Your task to perform on an android device: uninstall "Etsy: Buy & Sell Unique Items" Image 0: 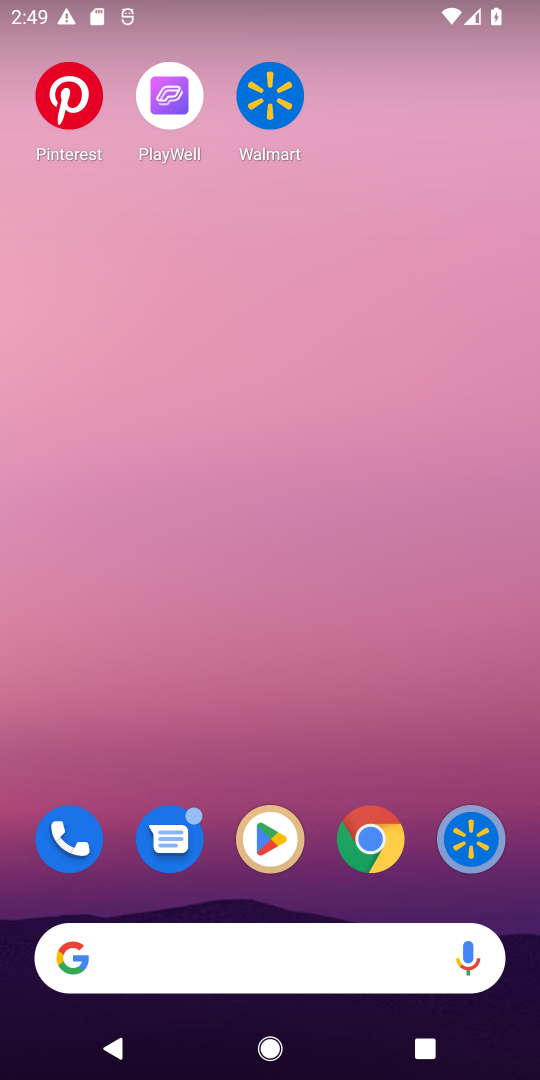
Step 0: click (277, 842)
Your task to perform on an android device: uninstall "Etsy: Buy & Sell Unique Items" Image 1: 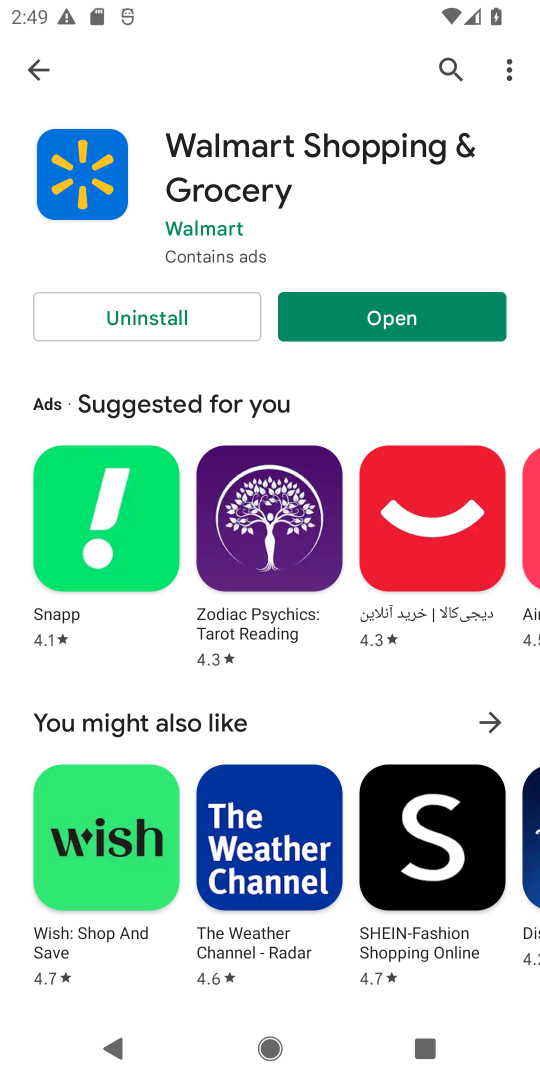
Step 1: click (51, 52)
Your task to perform on an android device: uninstall "Etsy: Buy & Sell Unique Items" Image 2: 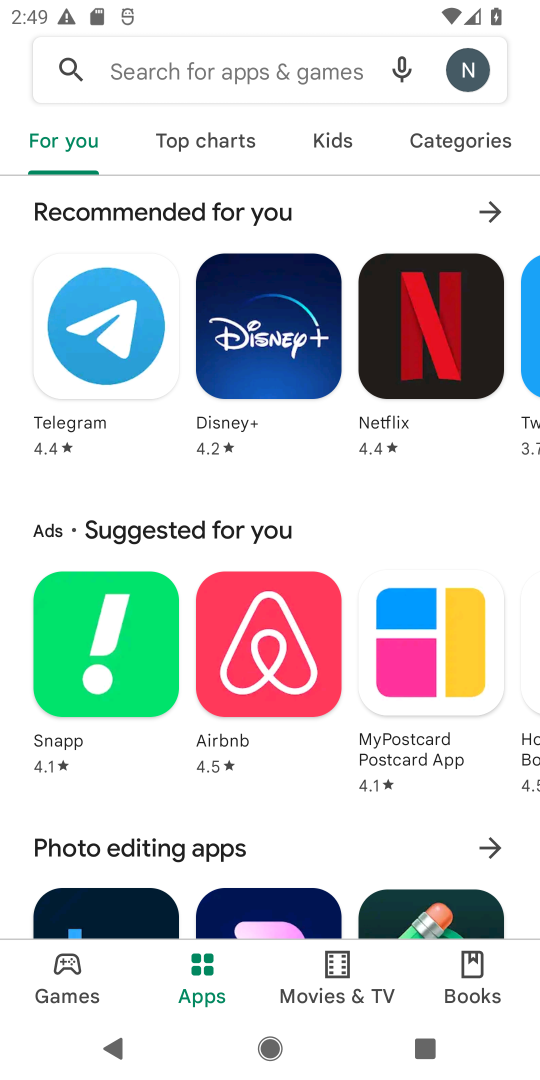
Step 2: click (99, 57)
Your task to perform on an android device: uninstall "Etsy: Buy & Sell Unique Items" Image 3: 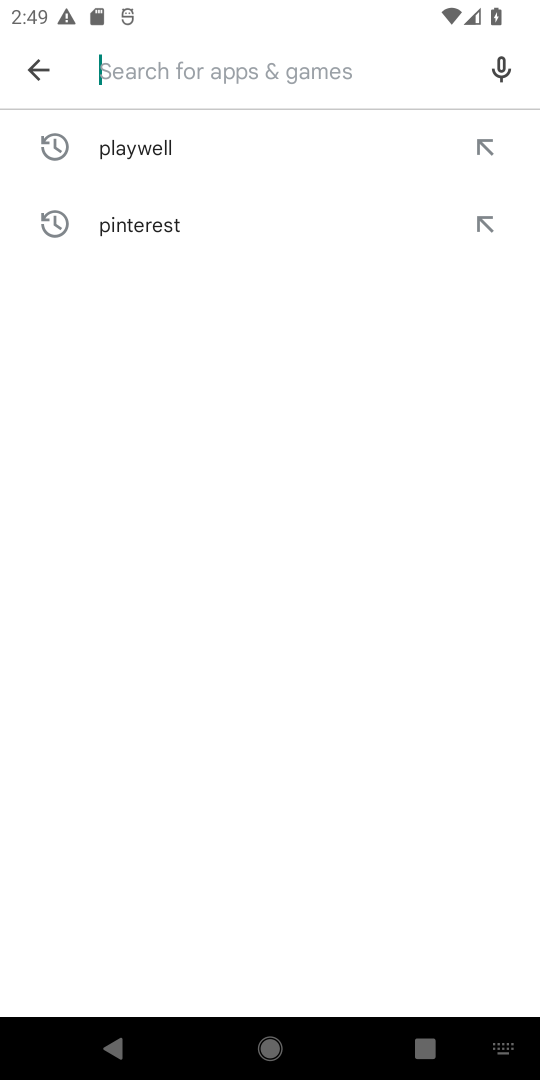
Step 3: type "Etsy: Buy & Sell Unique Items"
Your task to perform on an android device: uninstall "Etsy: Buy & Sell Unique Items" Image 4: 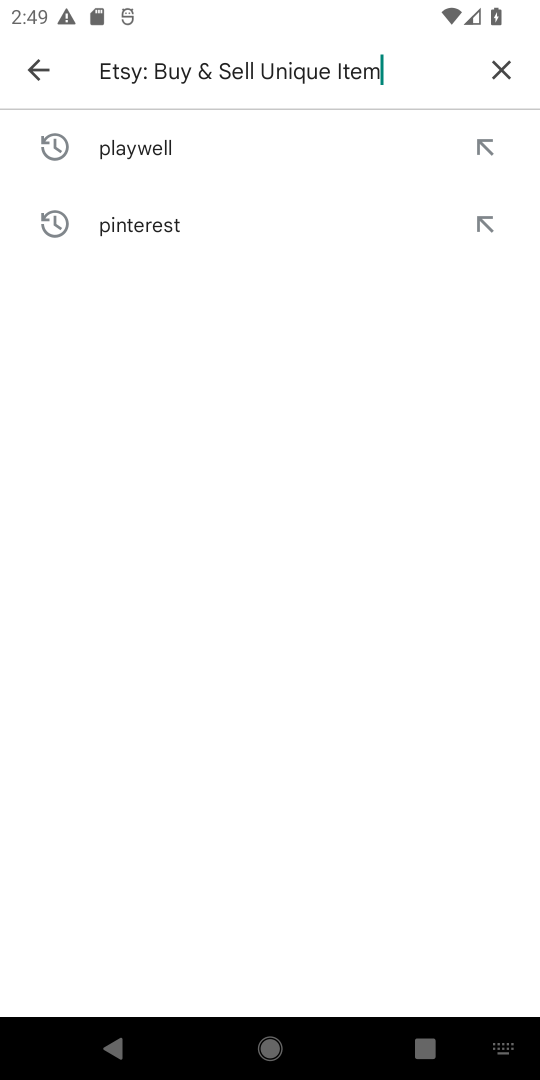
Step 4: type ""
Your task to perform on an android device: uninstall "Etsy: Buy & Sell Unique Items" Image 5: 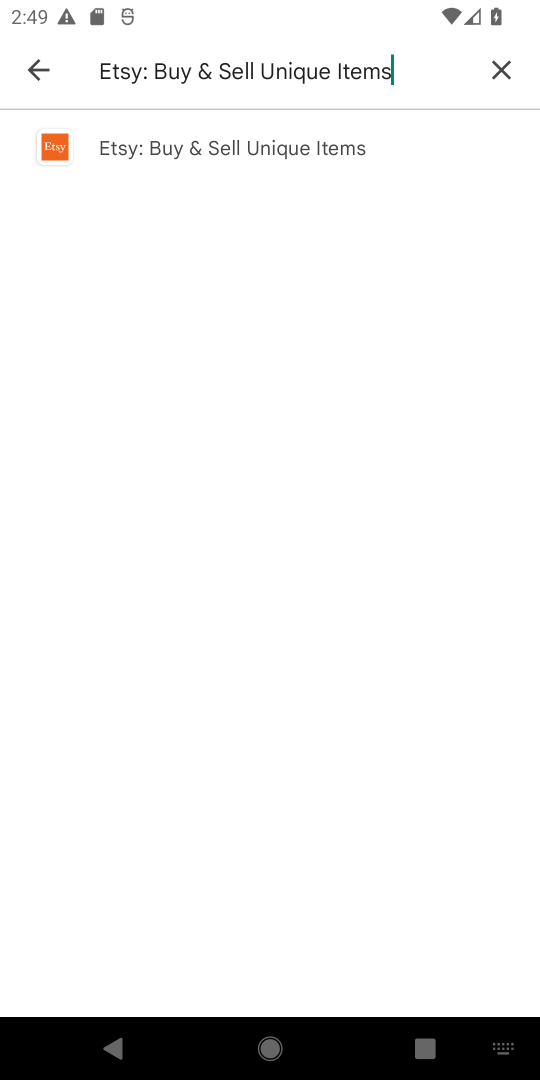
Step 5: click (101, 133)
Your task to perform on an android device: uninstall "Etsy: Buy & Sell Unique Items" Image 6: 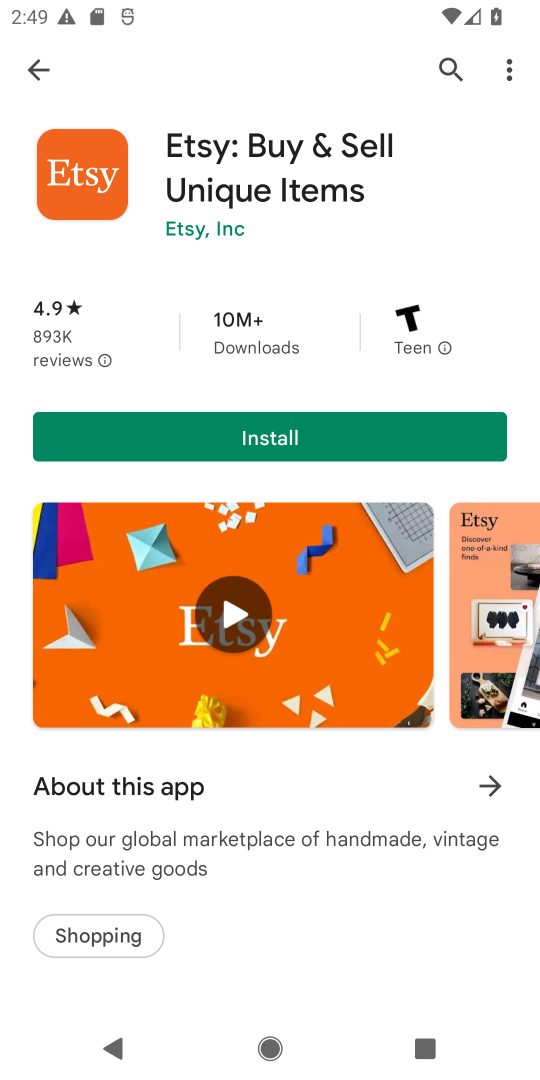
Step 6: task complete